Your task to perform on an android device: Add "usb-a to usb-b" to the cart on ebay Image 0: 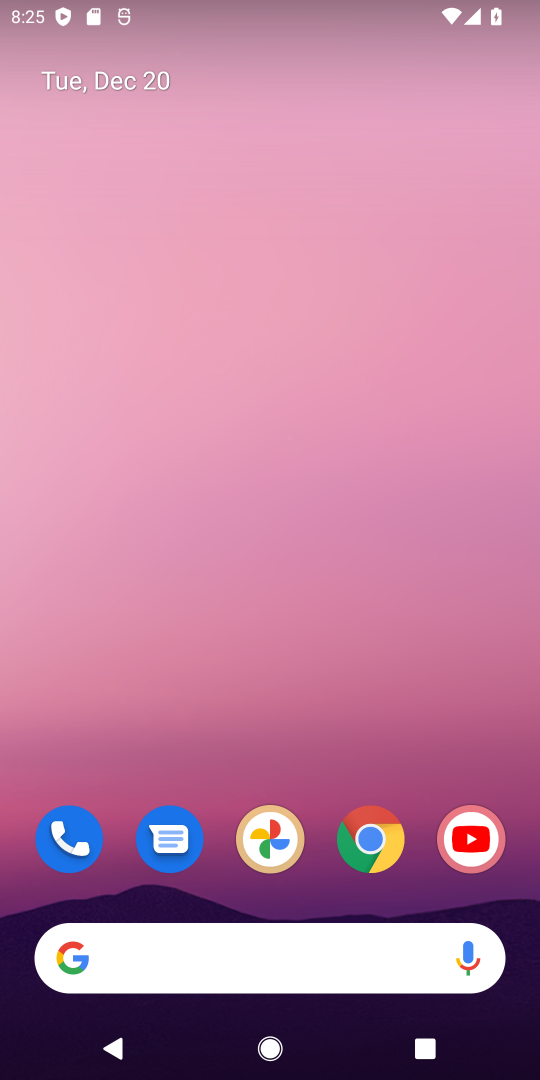
Step 0: click (310, 962)
Your task to perform on an android device: Add "usb-a to usb-b" to the cart on ebay Image 1: 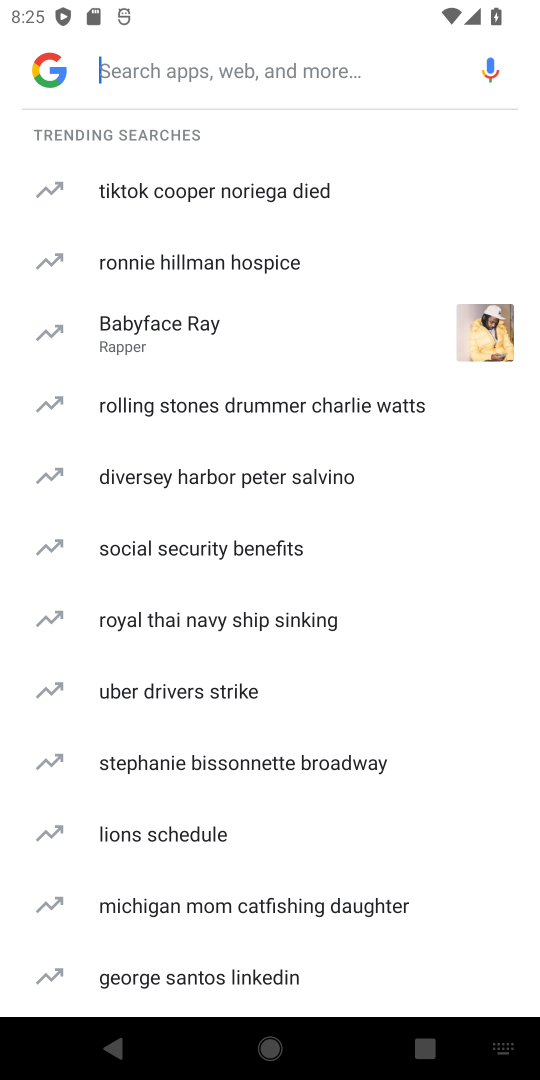
Step 1: type "ebay"
Your task to perform on an android device: Add "usb-a to usb-b" to the cart on ebay Image 2: 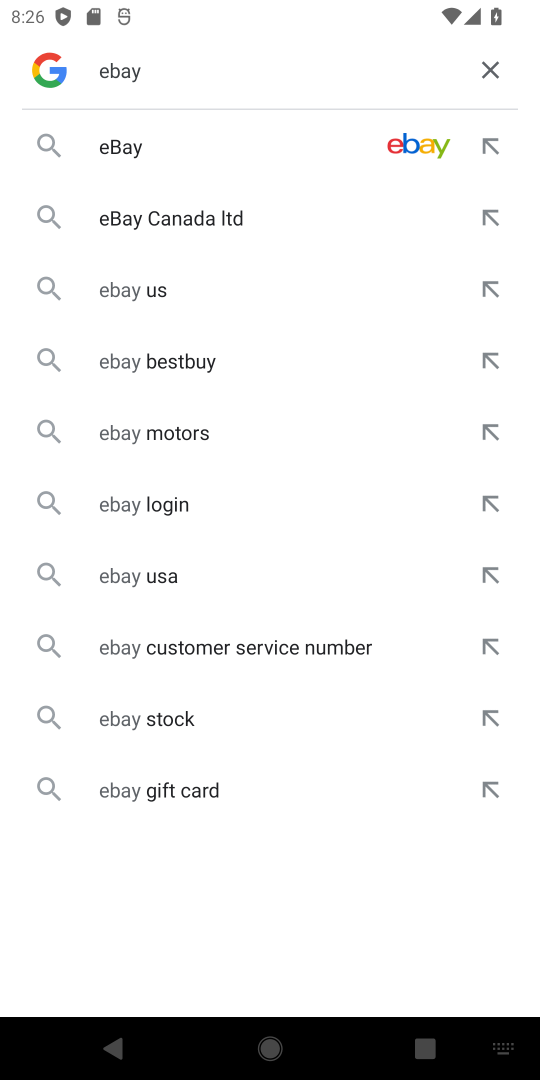
Step 2: click (355, 161)
Your task to perform on an android device: Add "usb-a to usb-b" to the cart on ebay Image 3: 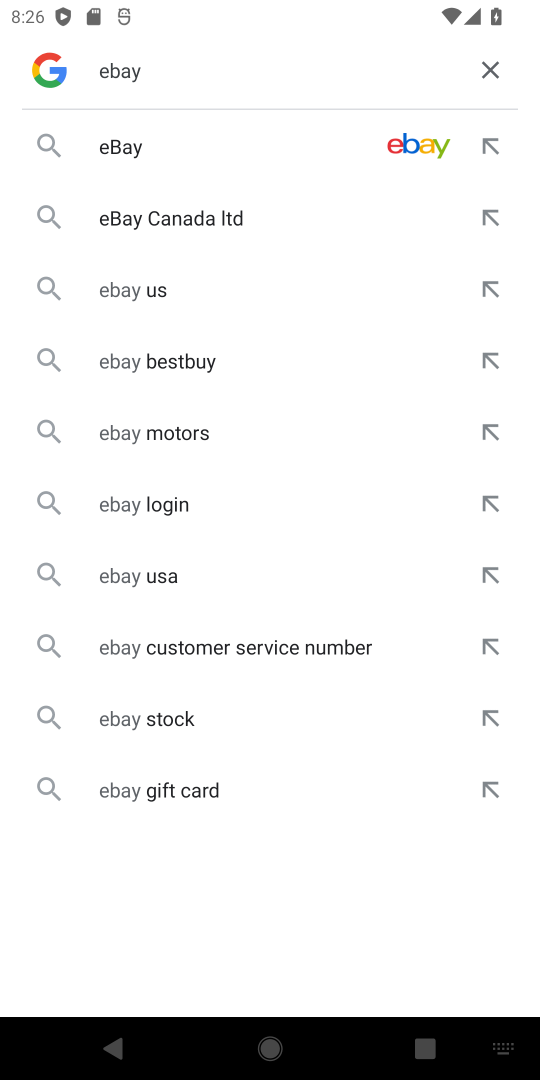
Step 3: click (355, 161)
Your task to perform on an android device: Add "usb-a to usb-b" to the cart on ebay Image 4: 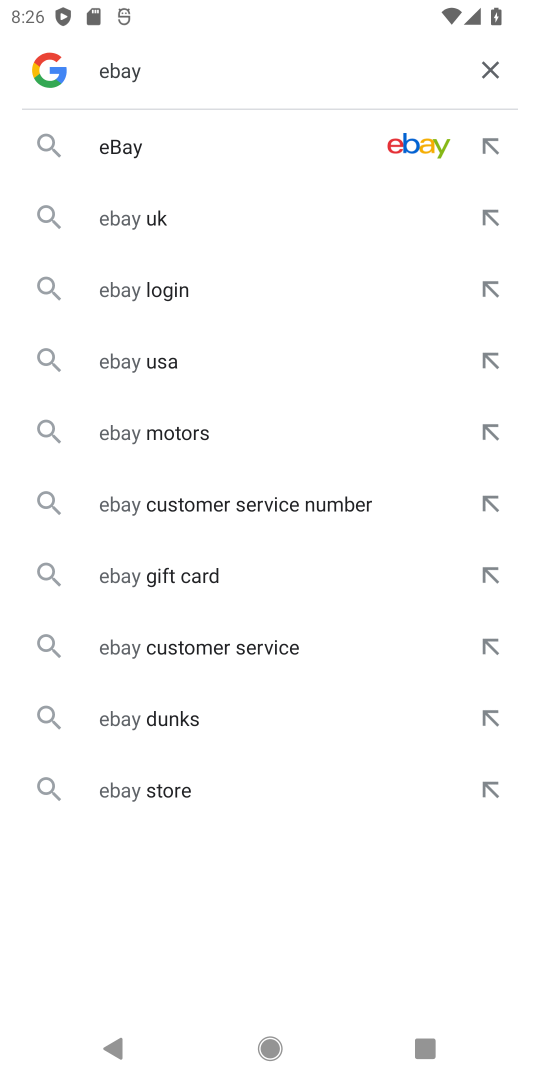
Step 4: click (270, 147)
Your task to perform on an android device: Add "usb-a to usb-b" to the cart on ebay Image 5: 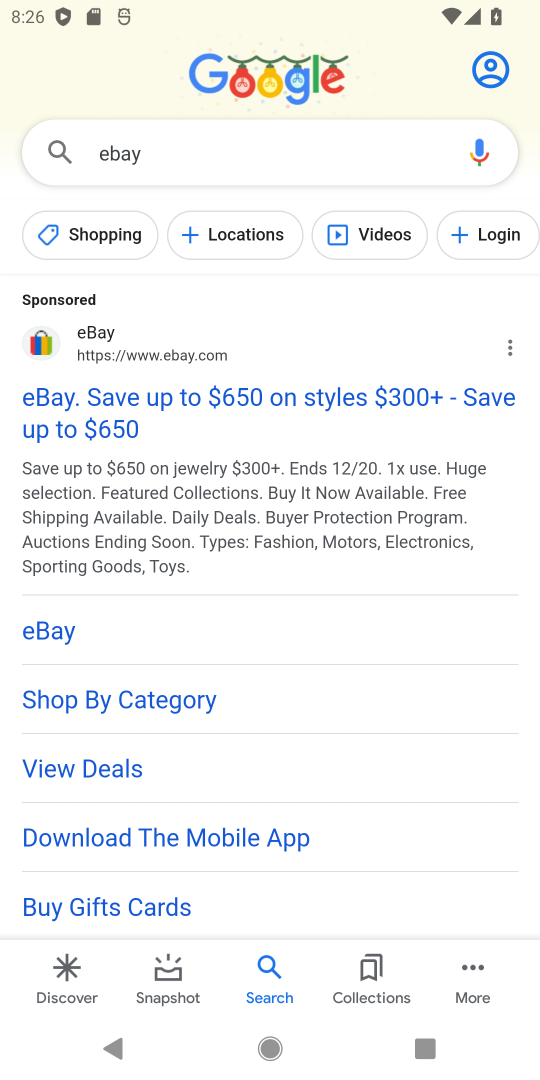
Step 5: click (93, 416)
Your task to perform on an android device: Add "usb-a to usb-b" to the cart on ebay Image 6: 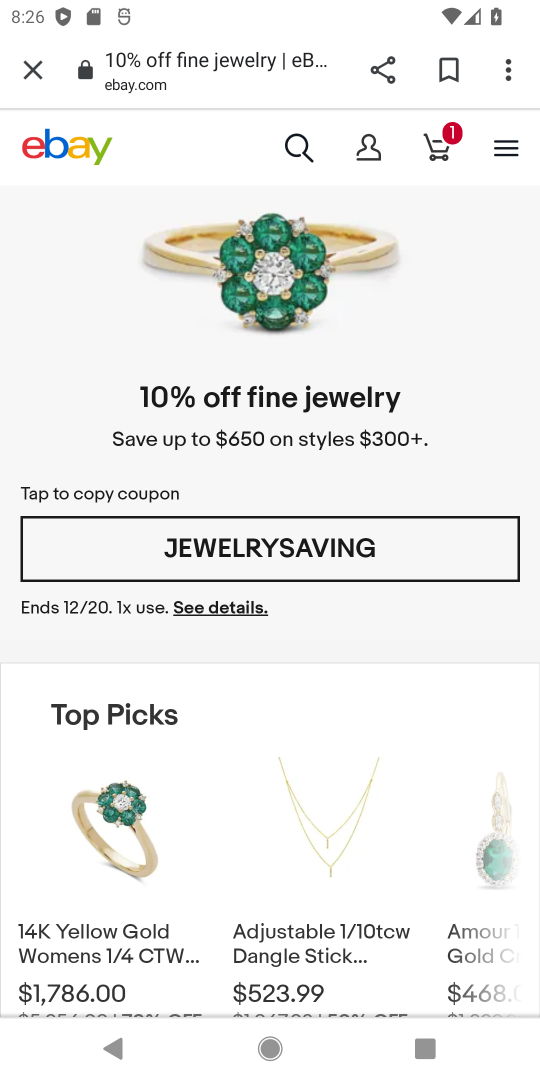
Step 6: click (290, 145)
Your task to perform on an android device: Add "usb-a to usb-b" to the cart on ebay Image 7: 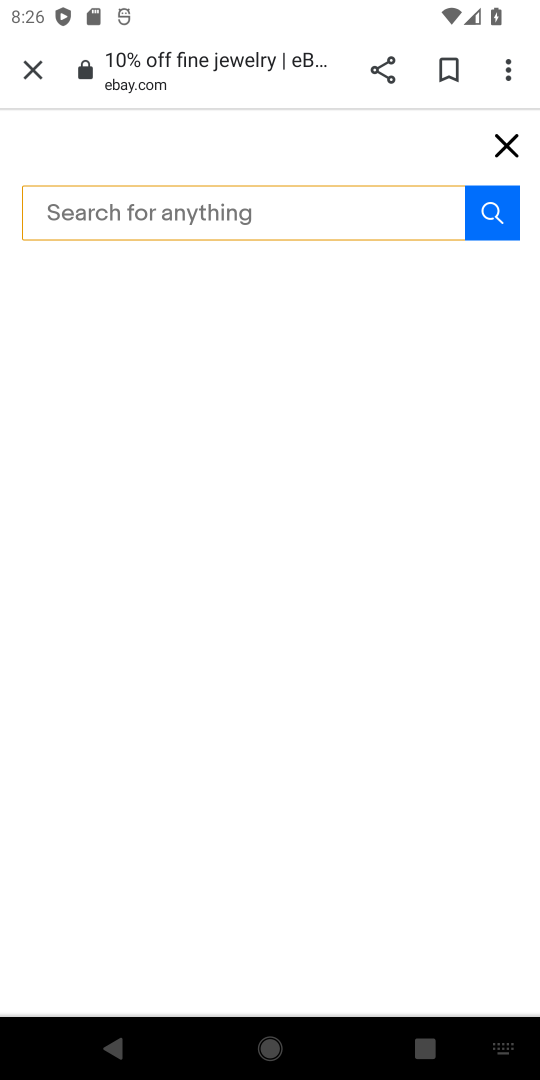
Step 7: type "usb-a to usb-b"
Your task to perform on an android device: Add "usb-a to usb-b" to the cart on ebay Image 8: 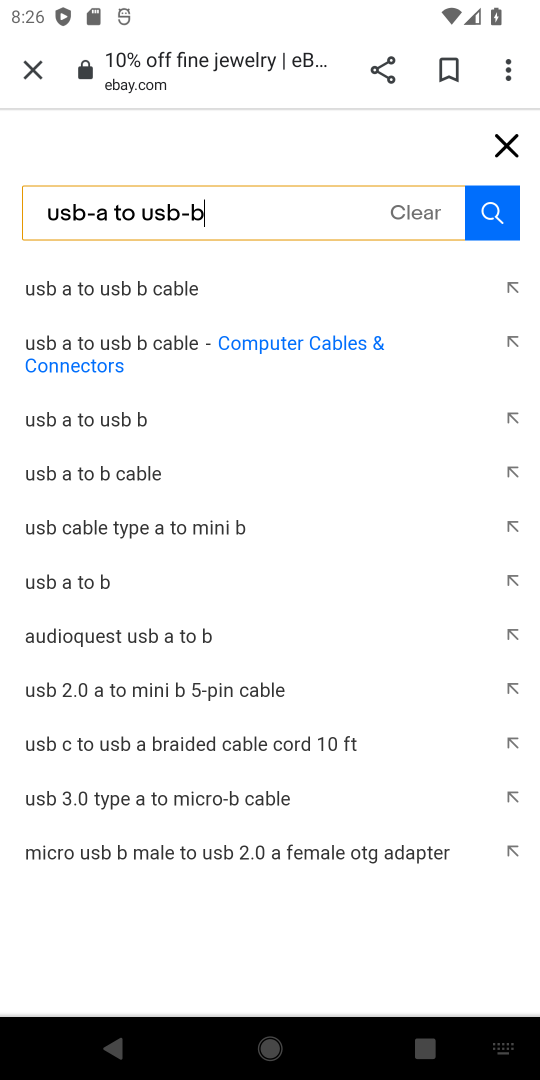
Step 8: click (480, 210)
Your task to perform on an android device: Add "usb-a to usb-b" to the cart on ebay Image 9: 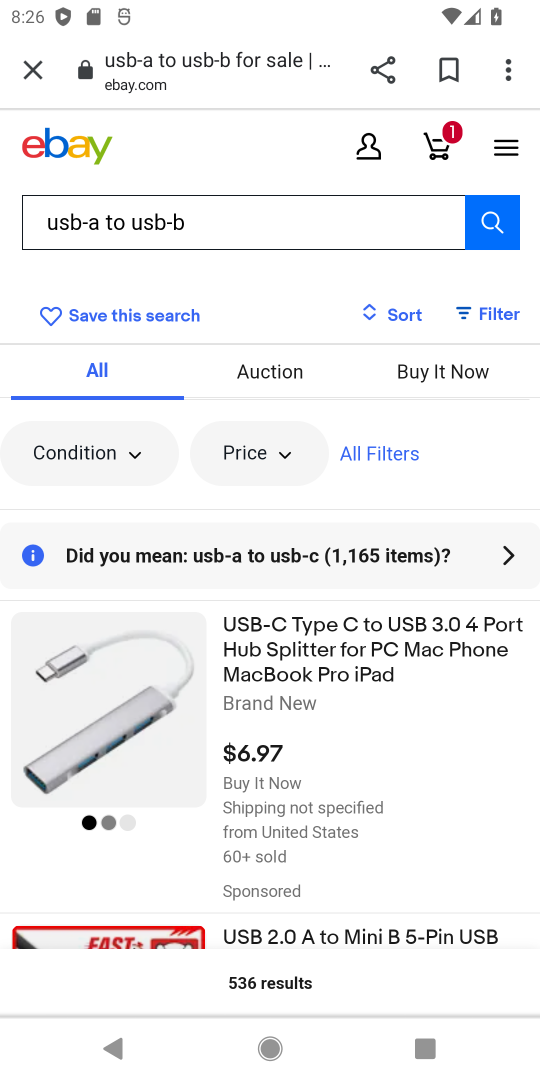
Step 9: click (274, 676)
Your task to perform on an android device: Add "usb-a to usb-b" to the cart on ebay Image 10: 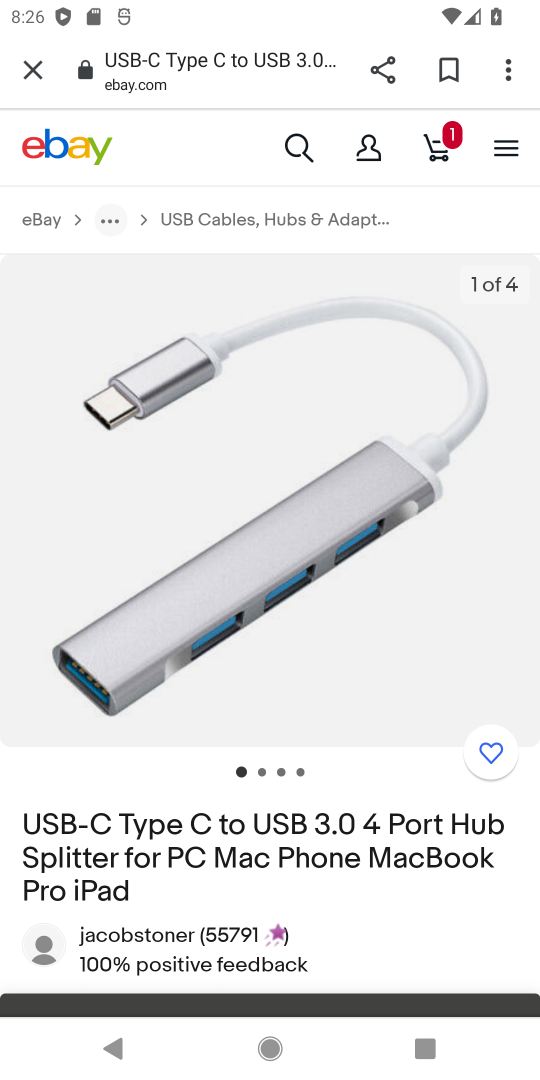
Step 10: drag from (218, 845) to (289, 497)
Your task to perform on an android device: Add "usb-a to usb-b" to the cart on ebay Image 11: 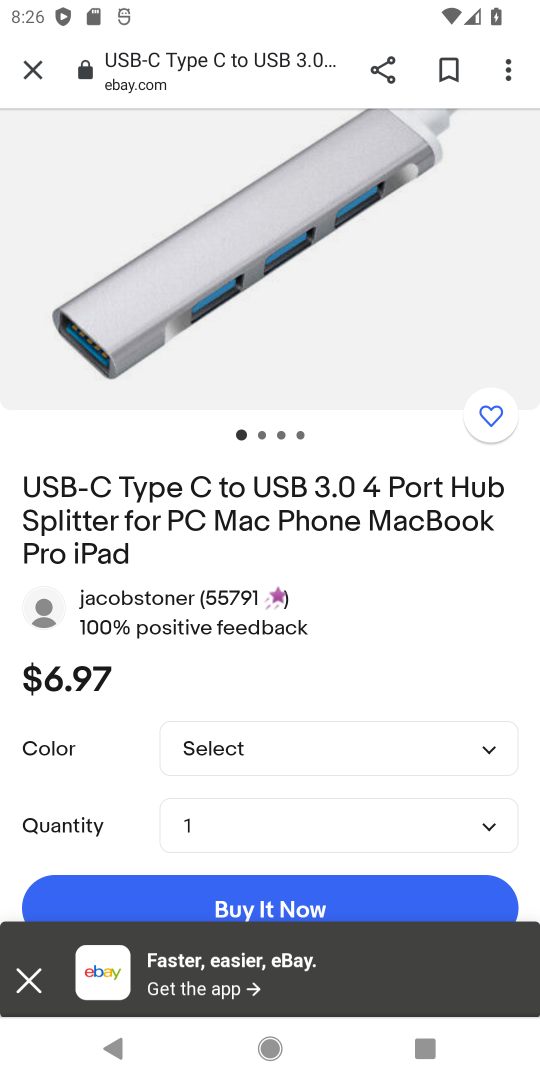
Step 11: drag from (271, 691) to (276, 459)
Your task to perform on an android device: Add "usb-a to usb-b" to the cart on ebay Image 12: 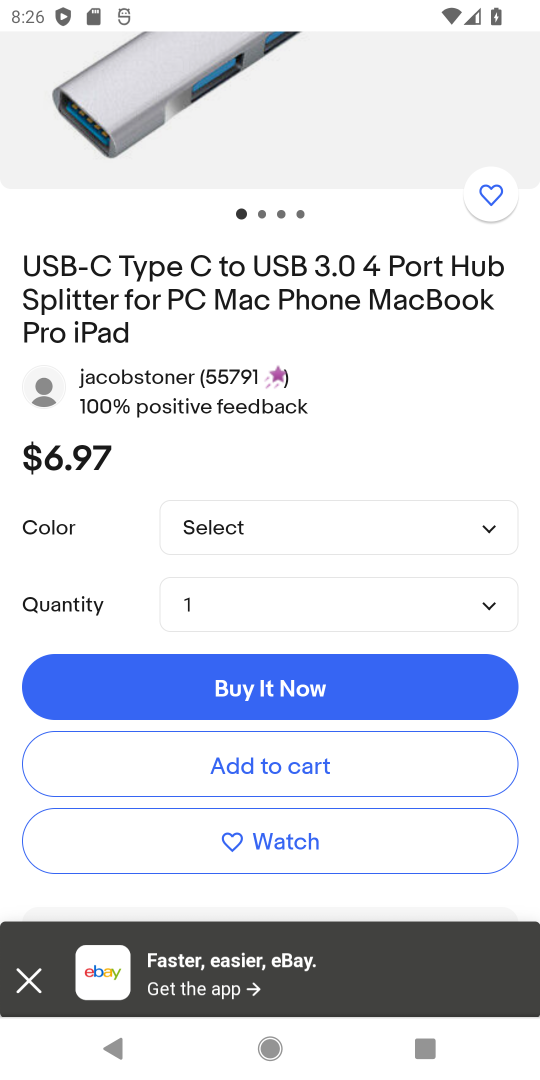
Step 12: click (257, 763)
Your task to perform on an android device: Add "usb-a to usb-b" to the cart on ebay Image 13: 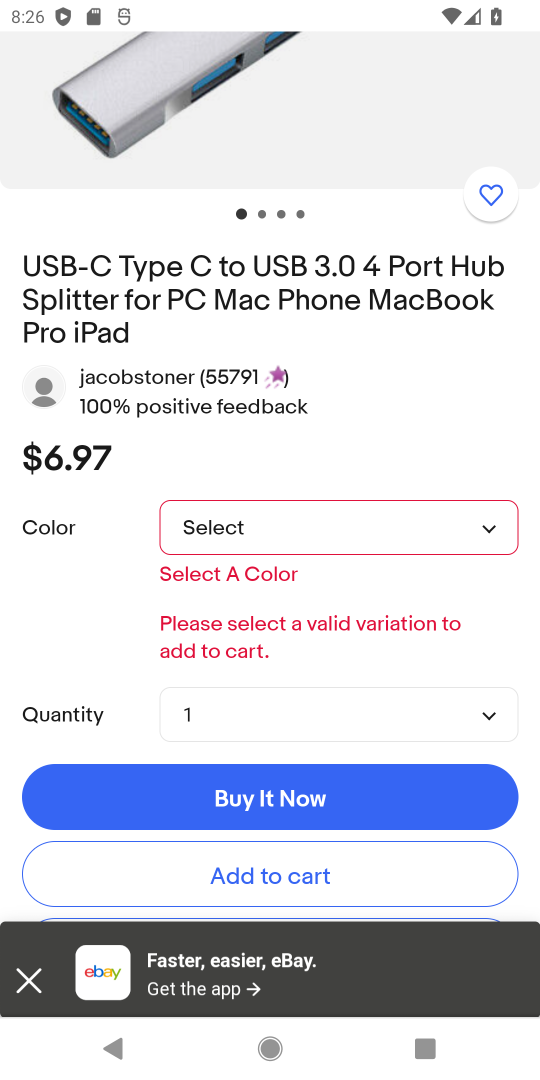
Step 13: click (374, 517)
Your task to perform on an android device: Add "usb-a to usb-b" to the cart on ebay Image 14: 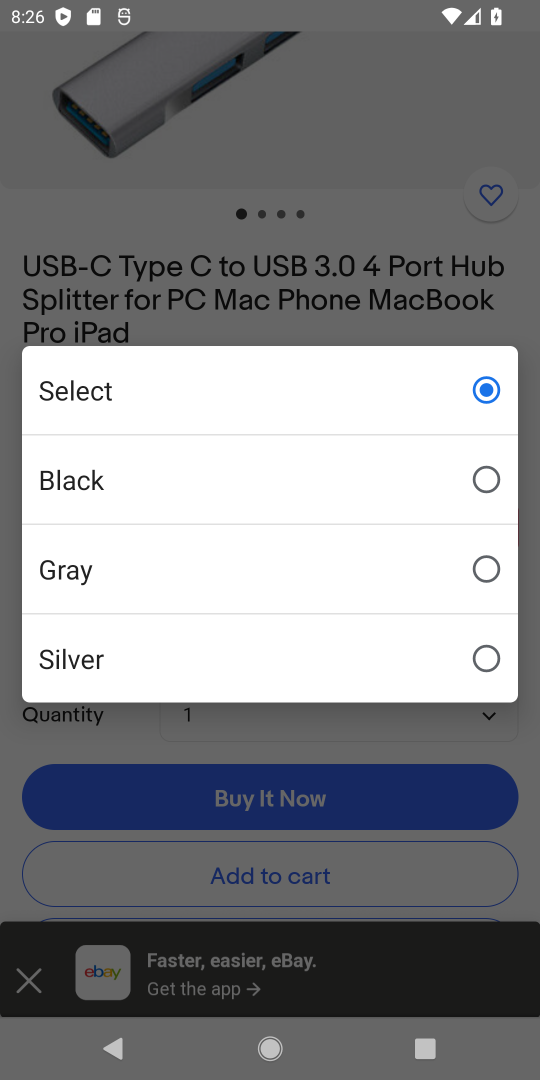
Step 14: click (494, 487)
Your task to perform on an android device: Add "usb-a to usb-b" to the cart on ebay Image 15: 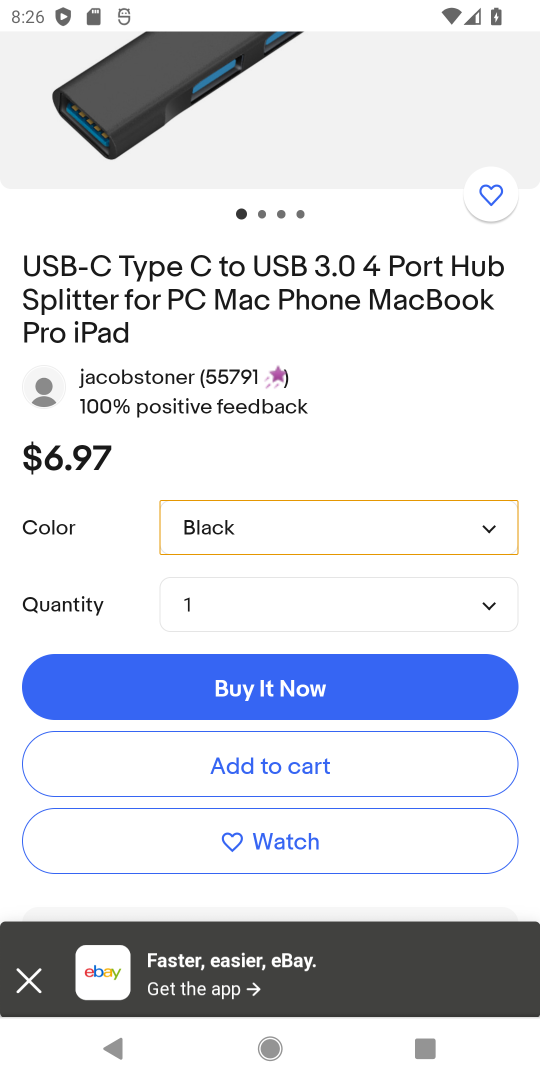
Step 15: click (260, 767)
Your task to perform on an android device: Add "usb-a to usb-b" to the cart on ebay Image 16: 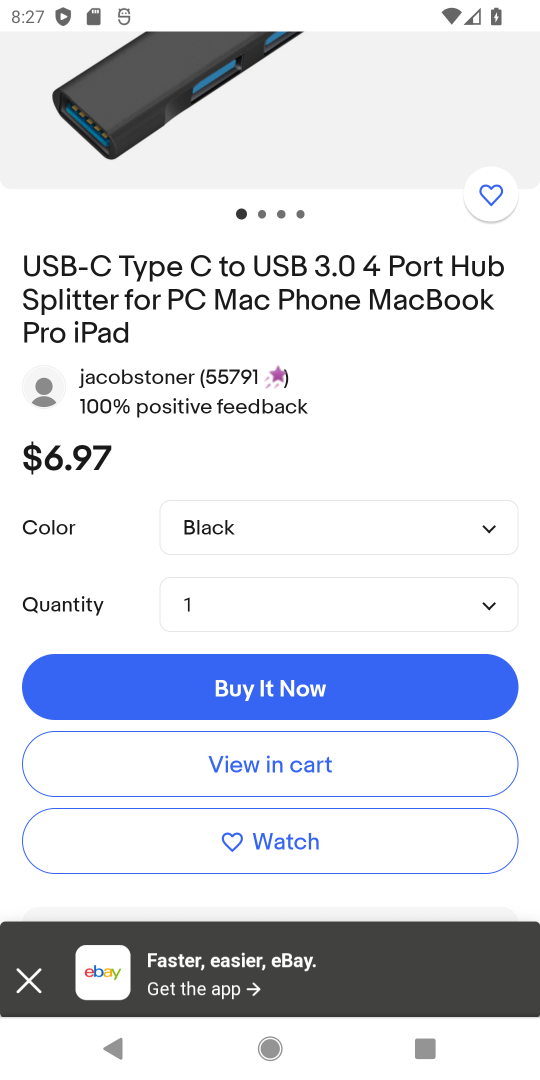
Step 16: task complete